Your task to perform on an android device: Open wifi settings Image 0: 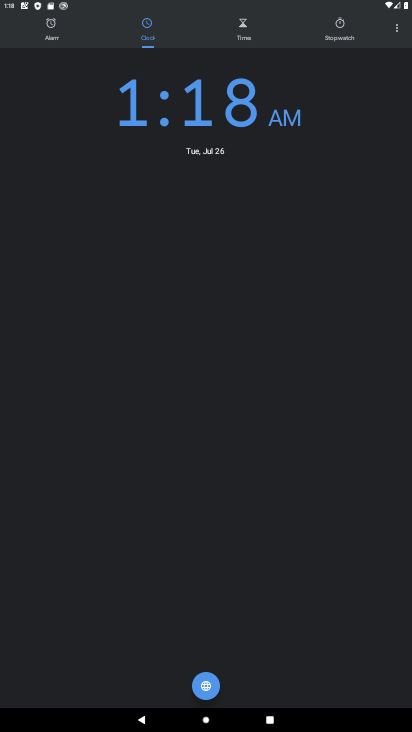
Step 0: press home button
Your task to perform on an android device: Open wifi settings Image 1: 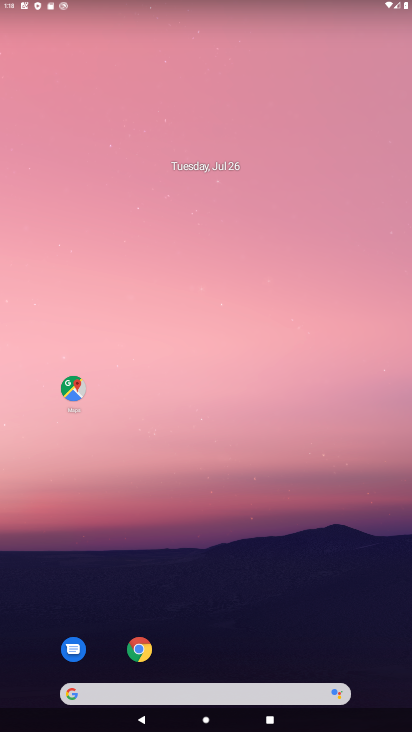
Step 1: drag from (202, 660) to (253, 67)
Your task to perform on an android device: Open wifi settings Image 2: 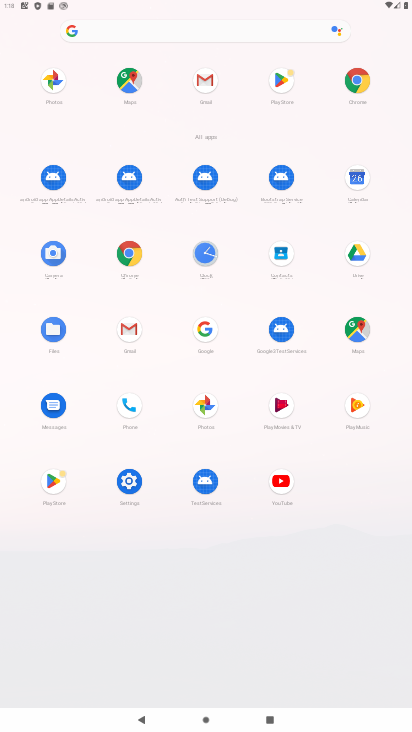
Step 2: click (125, 478)
Your task to perform on an android device: Open wifi settings Image 3: 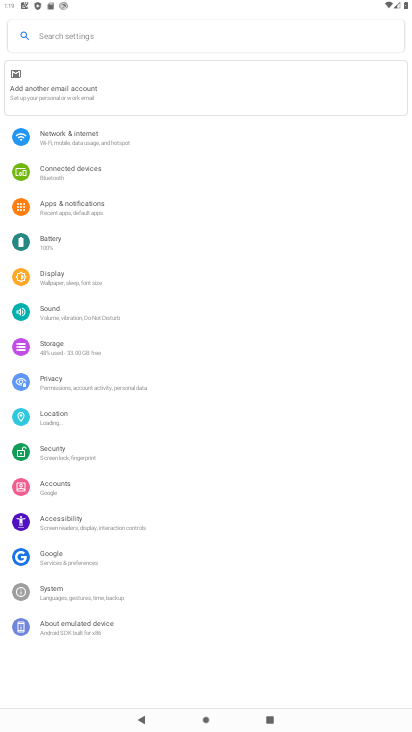
Step 3: click (88, 136)
Your task to perform on an android device: Open wifi settings Image 4: 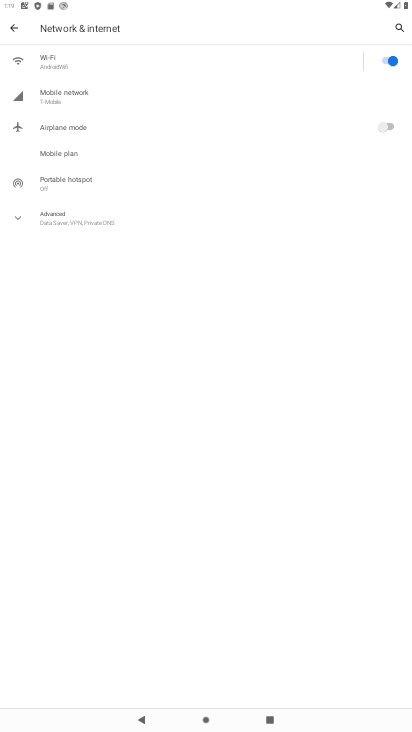
Step 4: click (92, 58)
Your task to perform on an android device: Open wifi settings Image 5: 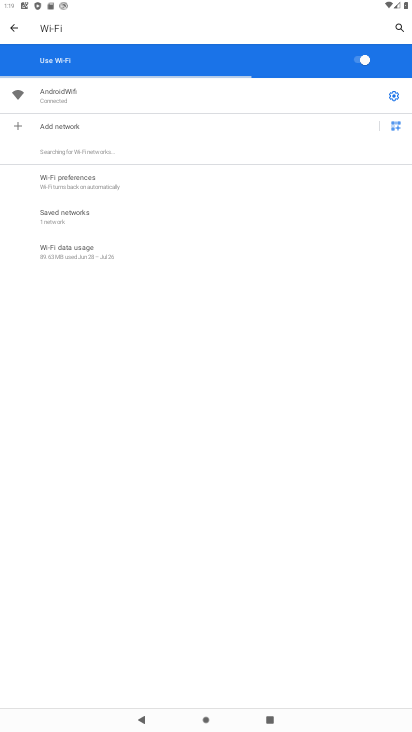
Step 5: task complete